Your task to perform on an android device: Search for the new Air Jordan 13 on Nike.com Image 0: 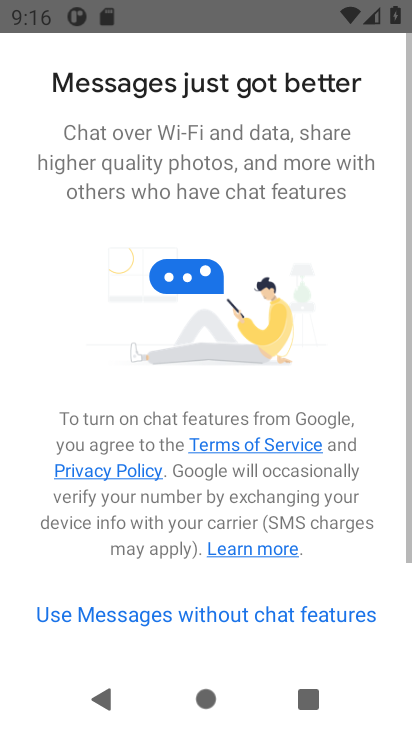
Step 0: press home button
Your task to perform on an android device: Search for the new Air Jordan 13 on Nike.com Image 1: 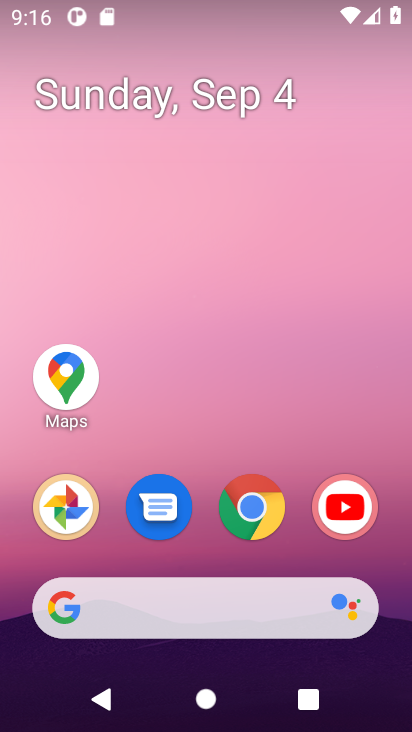
Step 1: click (252, 508)
Your task to perform on an android device: Search for the new Air Jordan 13 on Nike.com Image 2: 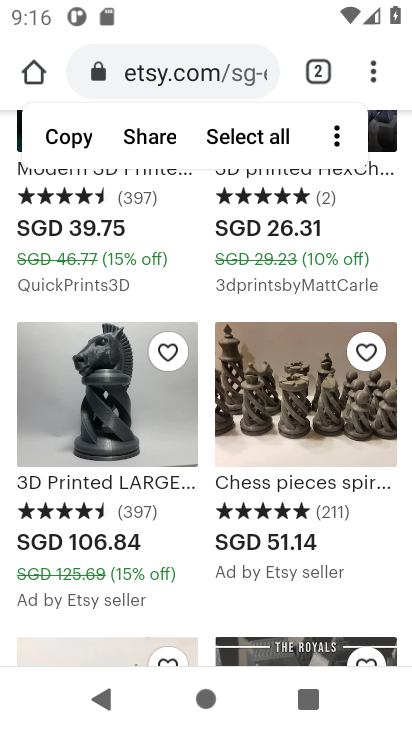
Step 2: click (161, 48)
Your task to perform on an android device: Search for the new Air Jordan 13 on Nike.com Image 3: 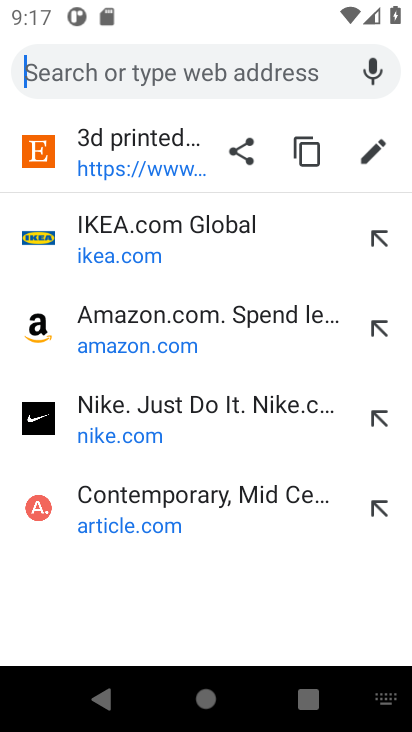
Step 3: type "Nike.com"
Your task to perform on an android device: Search for the new Air Jordan 13 on Nike.com Image 4: 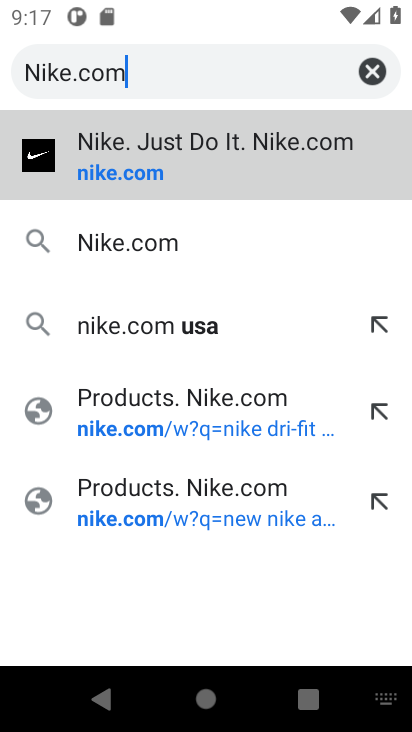
Step 4: click (153, 140)
Your task to perform on an android device: Search for the new Air Jordan 13 on Nike.com Image 5: 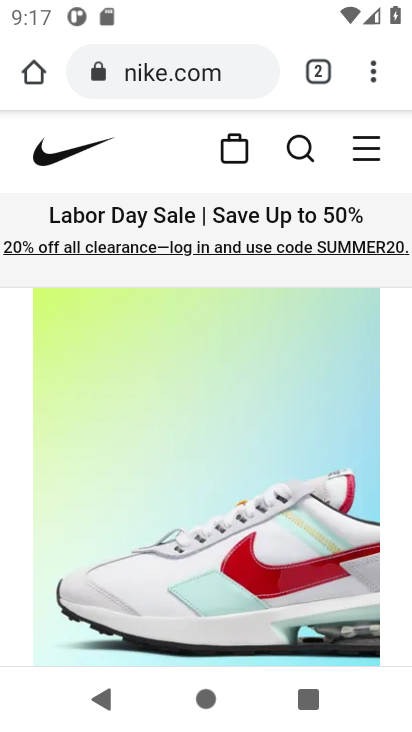
Step 5: click (294, 138)
Your task to perform on an android device: Search for the new Air Jordan 13 on Nike.com Image 6: 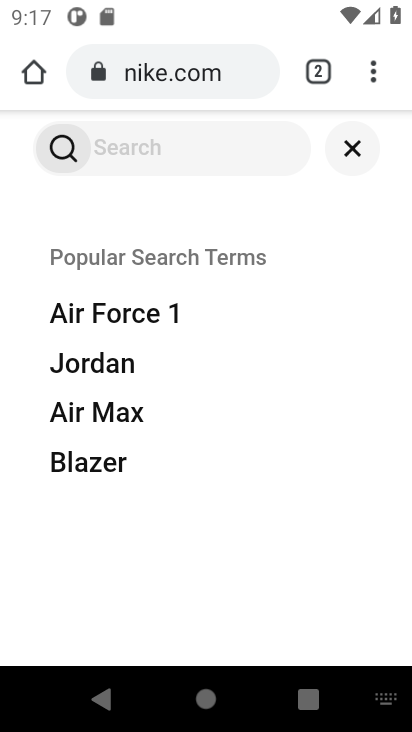
Step 6: type "new Air Jordan 13"
Your task to perform on an android device: Search for the new Air Jordan 13 on Nike.com Image 7: 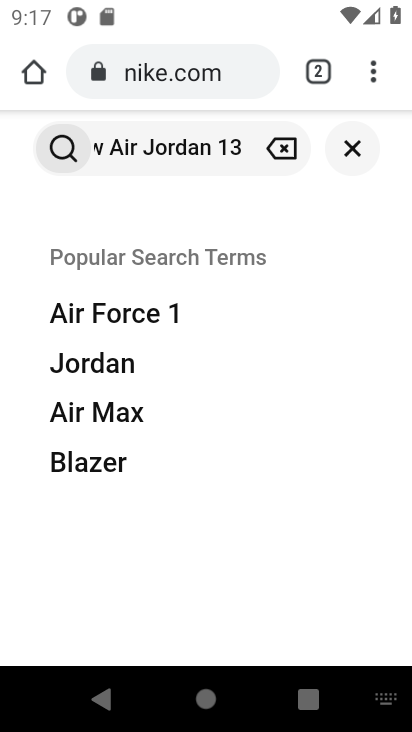
Step 7: click (72, 141)
Your task to perform on an android device: Search for the new Air Jordan 13 on Nike.com Image 8: 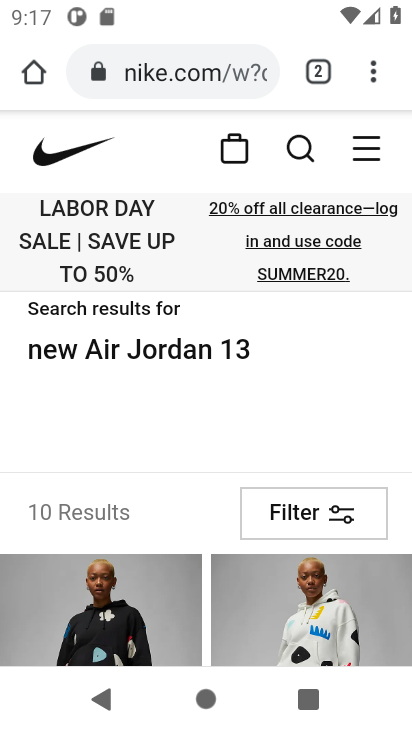
Step 8: drag from (200, 402) to (199, 229)
Your task to perform on an android device: Search for the new Air Jordan 13 on Nike.com Image 9: 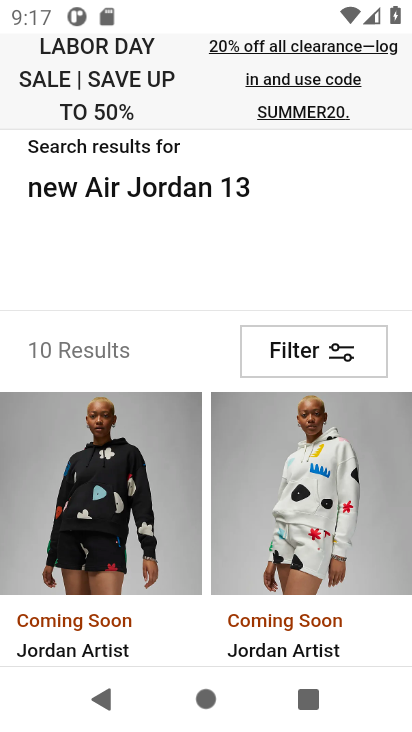
Step 9: drag from (207, 599) to (198, 263)
Your task to perform on an android device: Search for the new Air Jordan 13 on Nike.com Image 10: 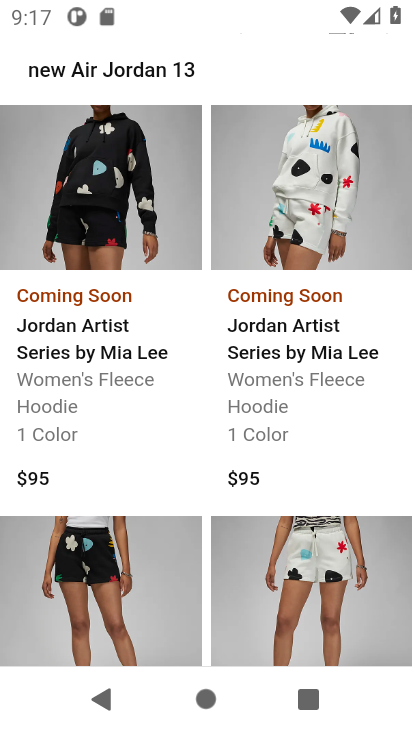
Step 10: drag from (205, 623) to (198, 194)
Your task to perform on an android device: Search for the new Air Jordan 13 on Nike.com Image 11: 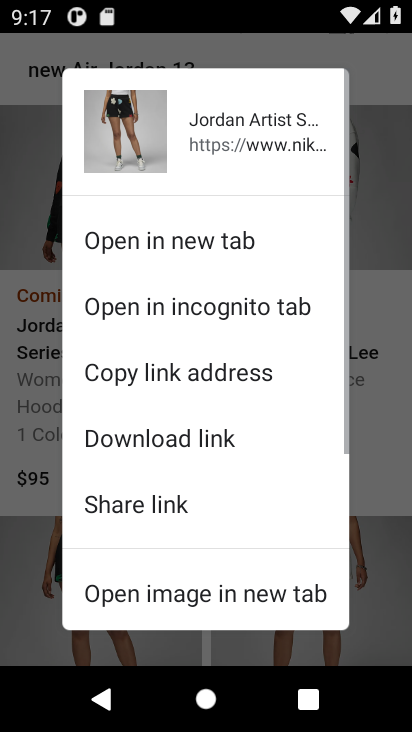
Step 11: click (36, 596)
Your task to perform on an android device: Search for the new Air Jordan 13 on Nike.com Image 12: 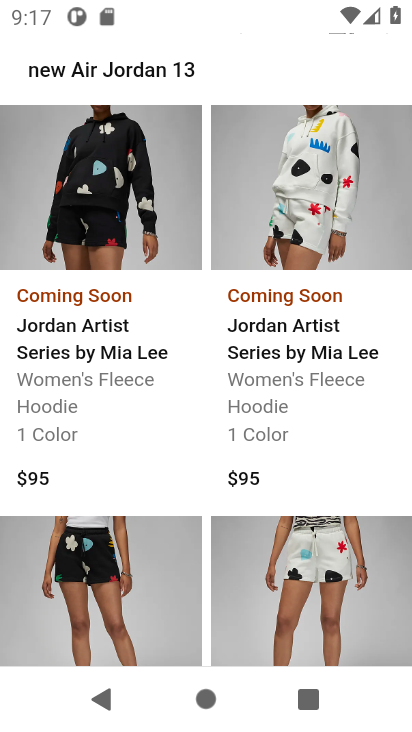
Step 12: drag from (204, 619) to (197, 228)
Your task to perform on an android device: Search for the new Air Jordan 13 on Nike.com Image 13: 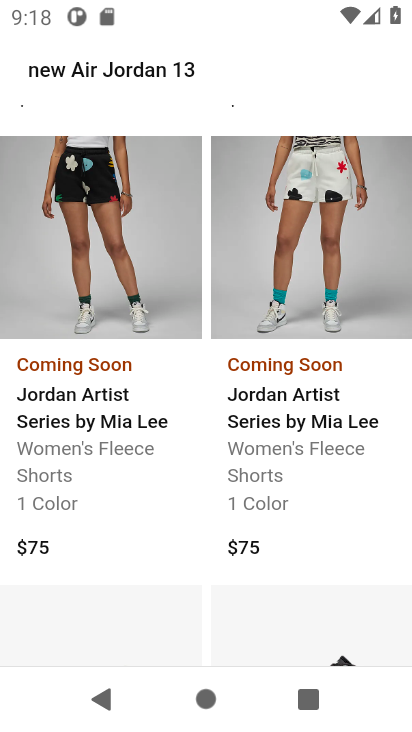
Step 13: drag from (208, 634) to (209, 295)
Your task to perform on an android device: Search for the new Air Jordan 13 on Nike.com Image 14: 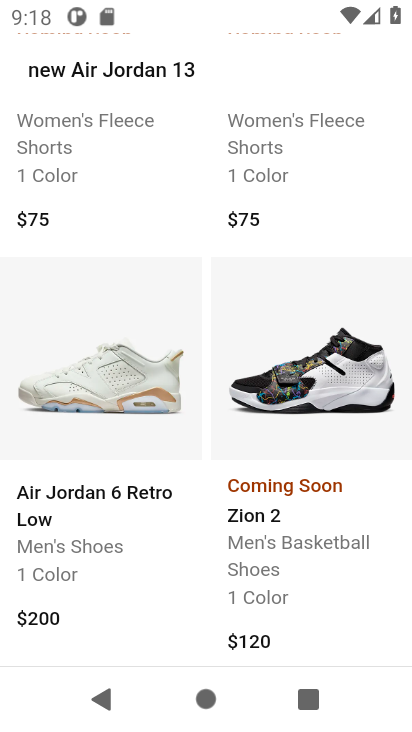
Step 14: drag from (209, 564) to (207, 255)
Your task to perform on an android device: Search for the new Air Jordan 13 on Nike.com Image 15: 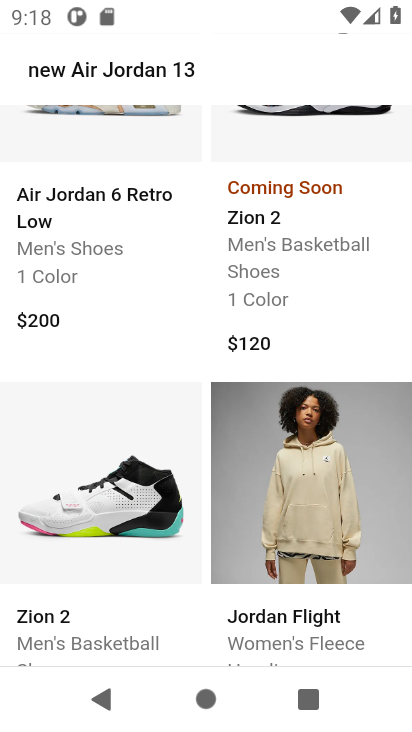
Step 15: drag from (203, 609) to (212, 316)
Your task to perform on an android device: Search for the new Air Jordan 13 on Nike.com Image 16: 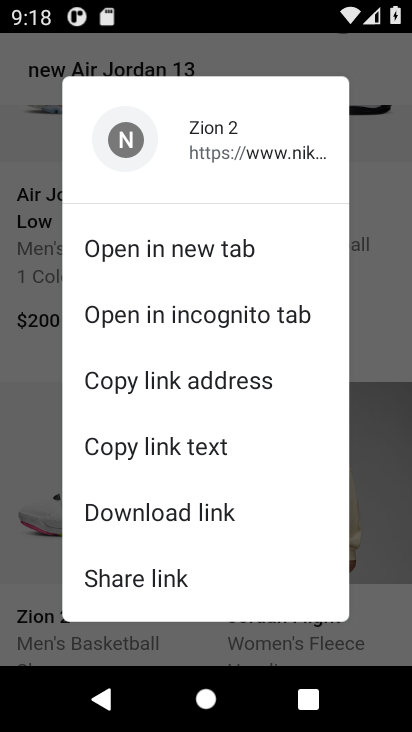
Step 16: click (12, 546)
Your task to perform on an android device: Search for the new Air Jordan 13 on Nike.com Image 17: 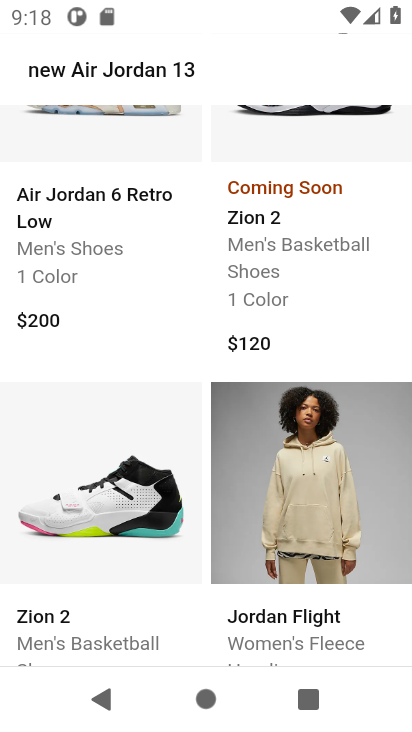
Step 17: task complete